Your task to perform on an android device: open app "Pinterest" (install if not already installed) Image 0: 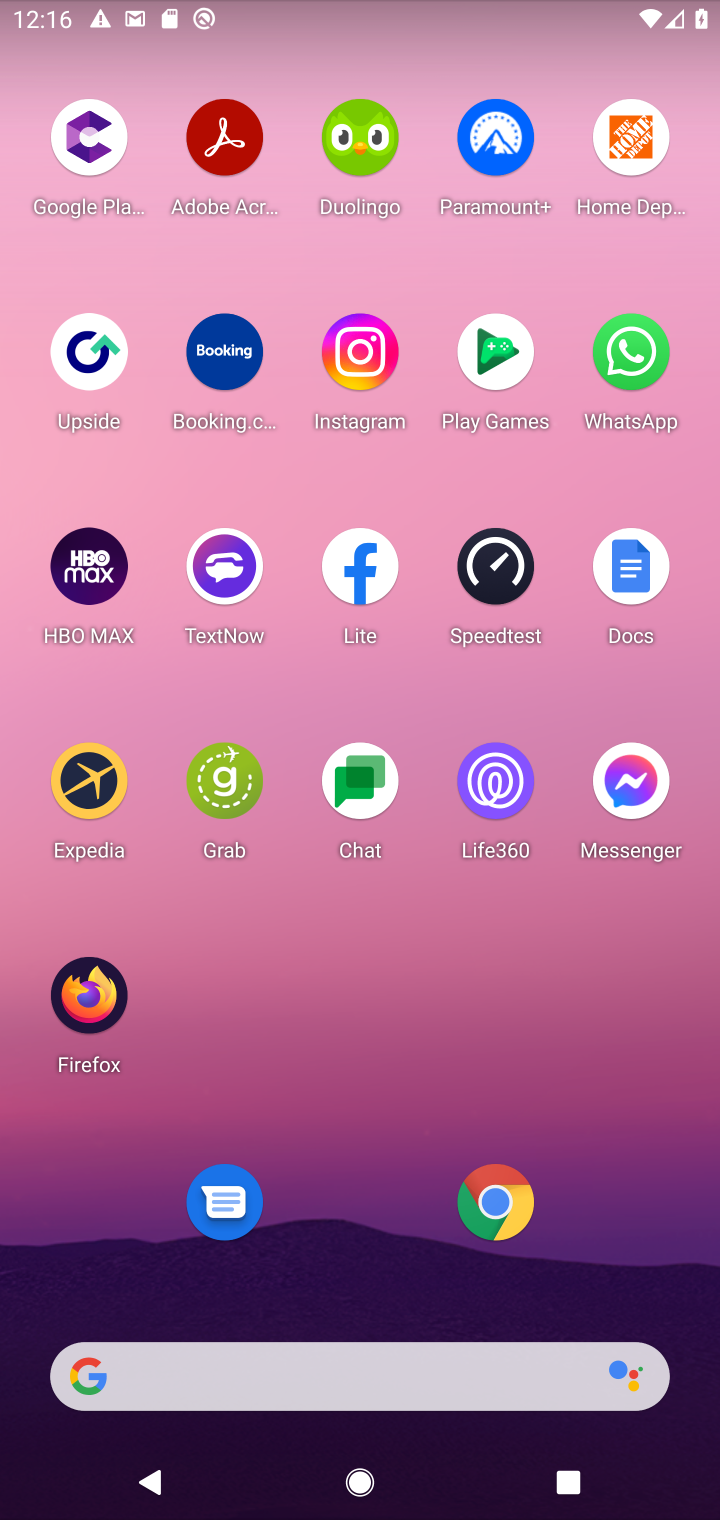
Step 0: press home button
Your task to perform on an android device: open app "Pinterest" (install if not already installed) Image 1: 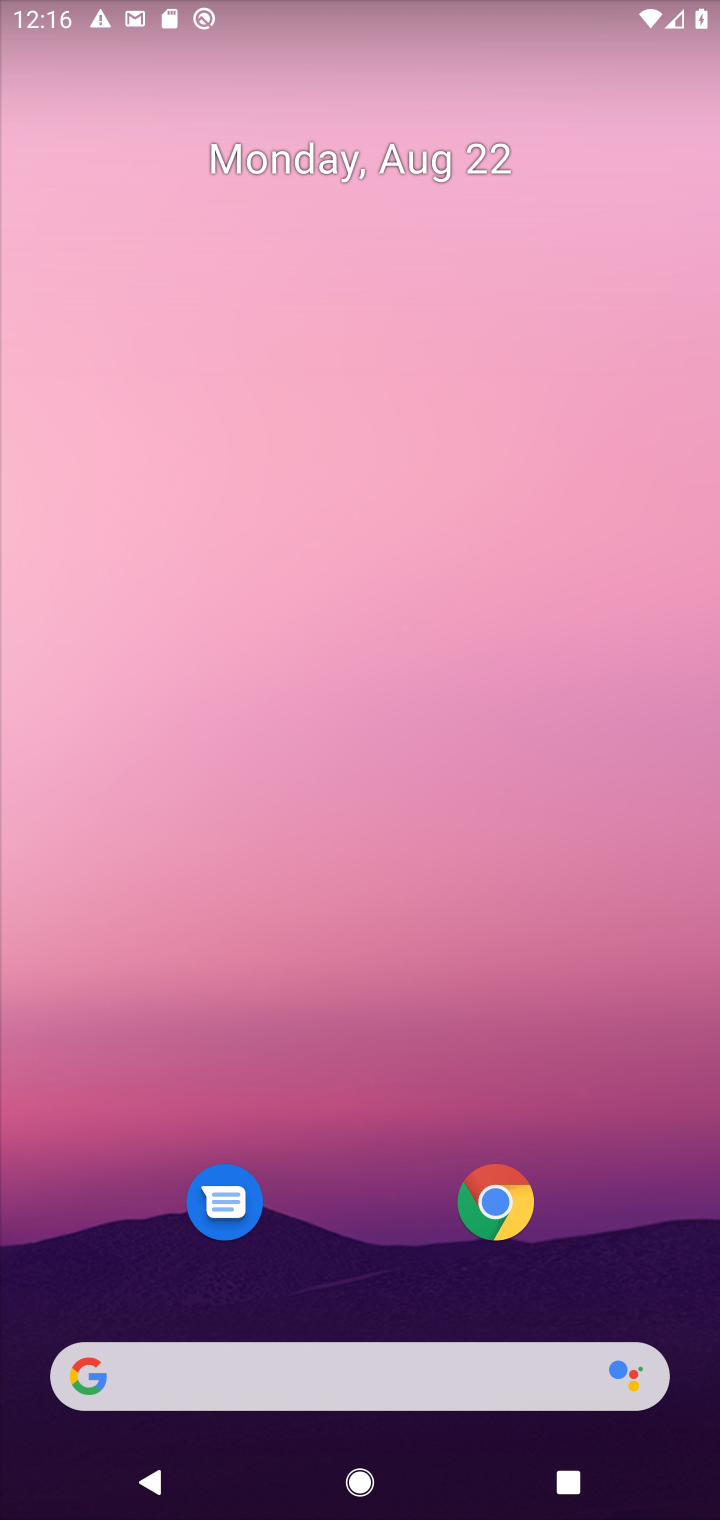
Step 1: drag from (358, 1197) to (286, 182)
Your task to perform on an android device: open app "Pinterest" (install if not already installed) Image 2: 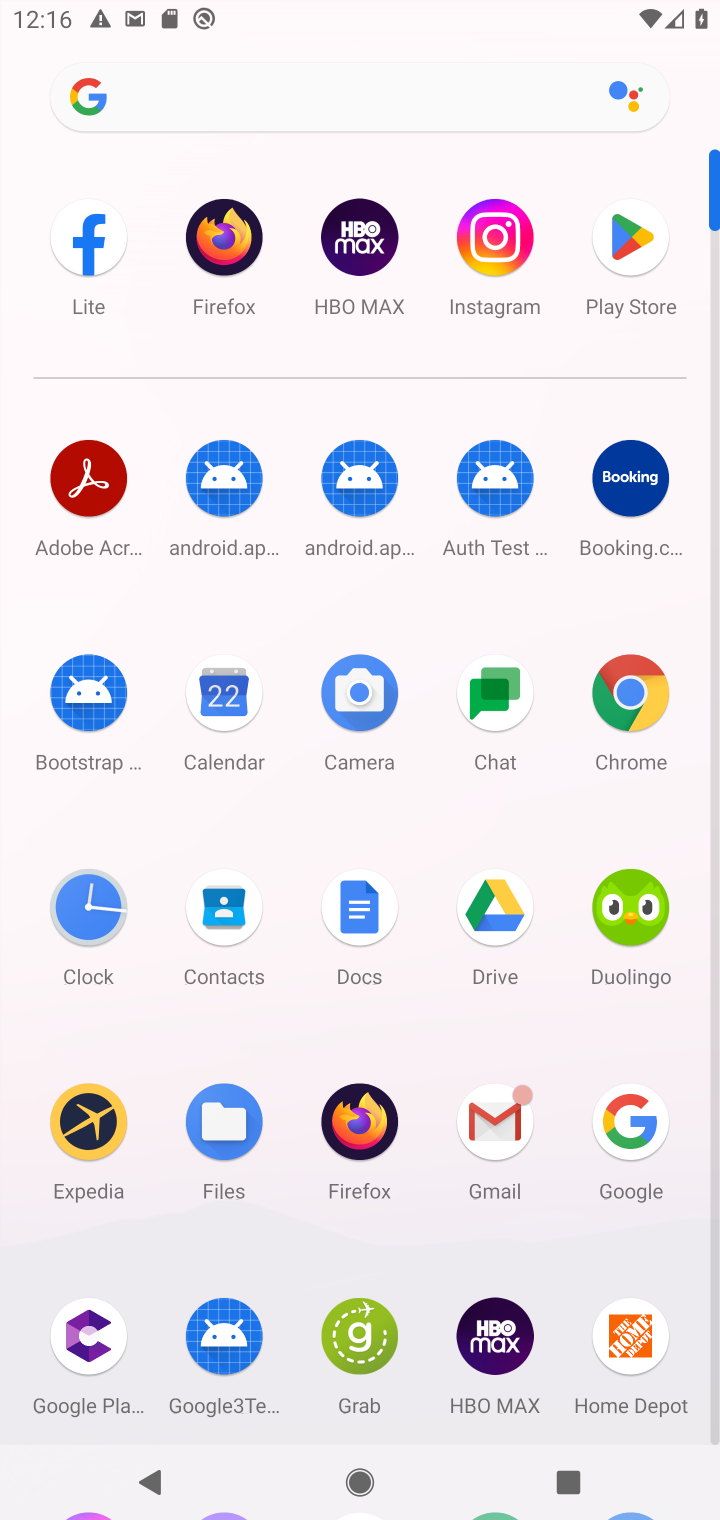
Step 2: click (621, 248)
Your task to perform on an android device: open app "Pinterest" (install if not already installed) Image 3: 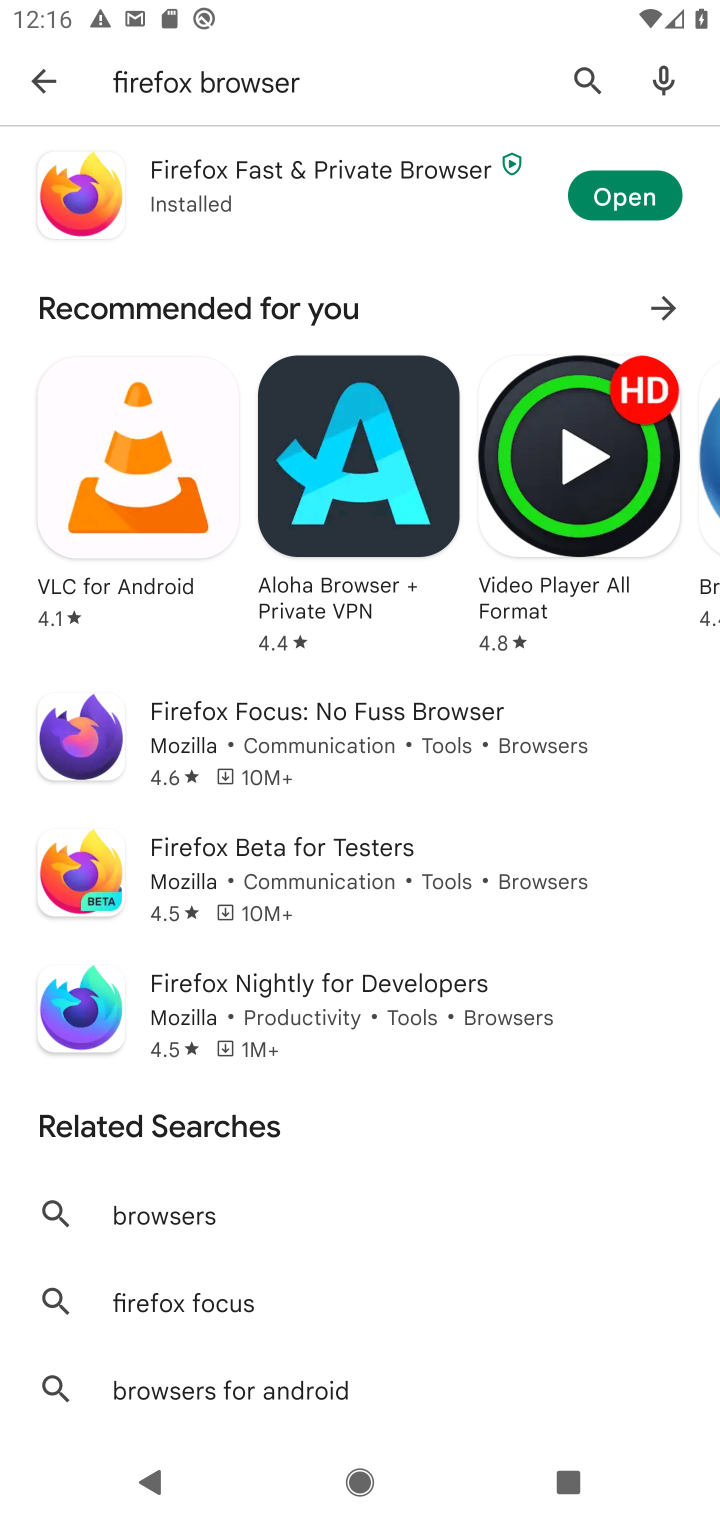
Step 3: click (584, 70)
Your task to perform on an android device: open app "Pinterest" (install if not already installed) Image 4: 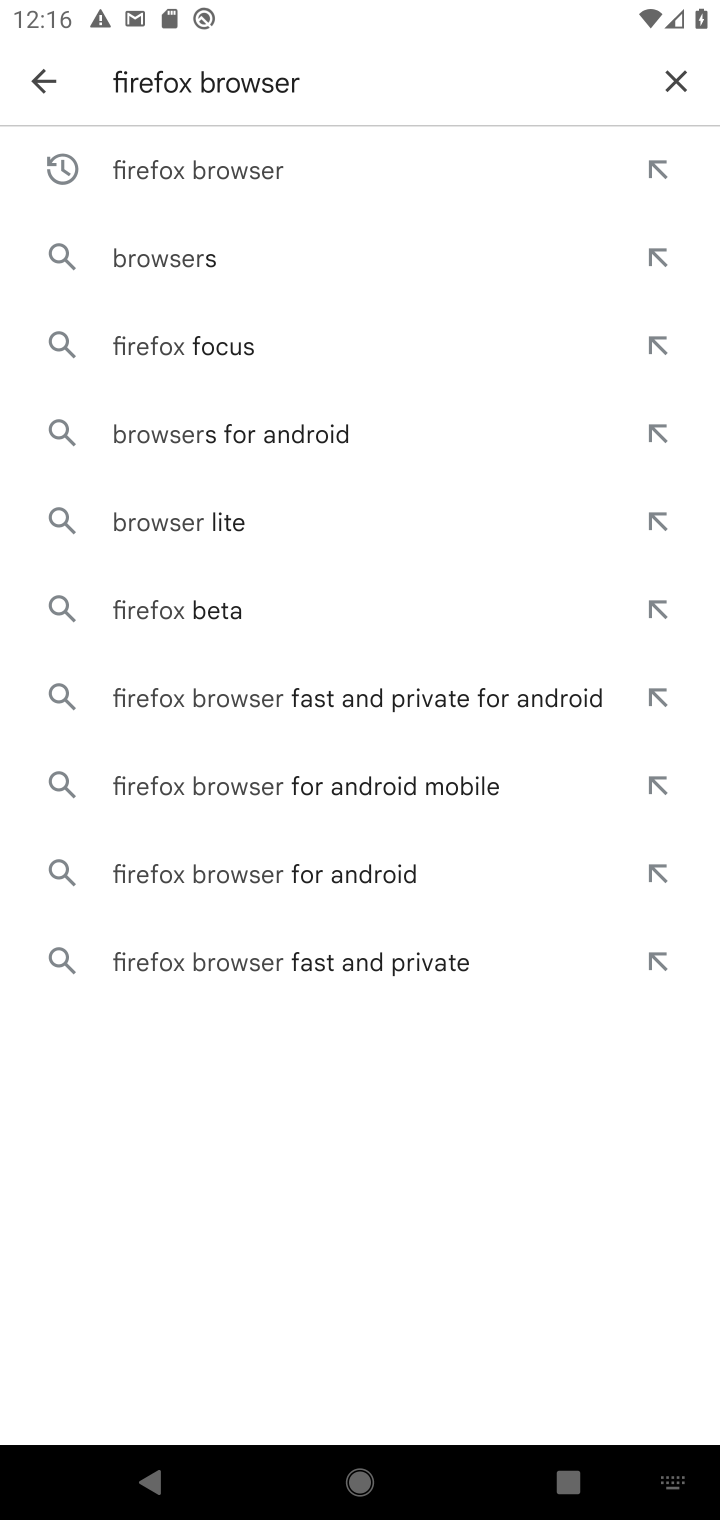
Step 4: click (669, 80)
Your task to perform on an android device: open app "Pinterest" (install if not already installed) Image 5: 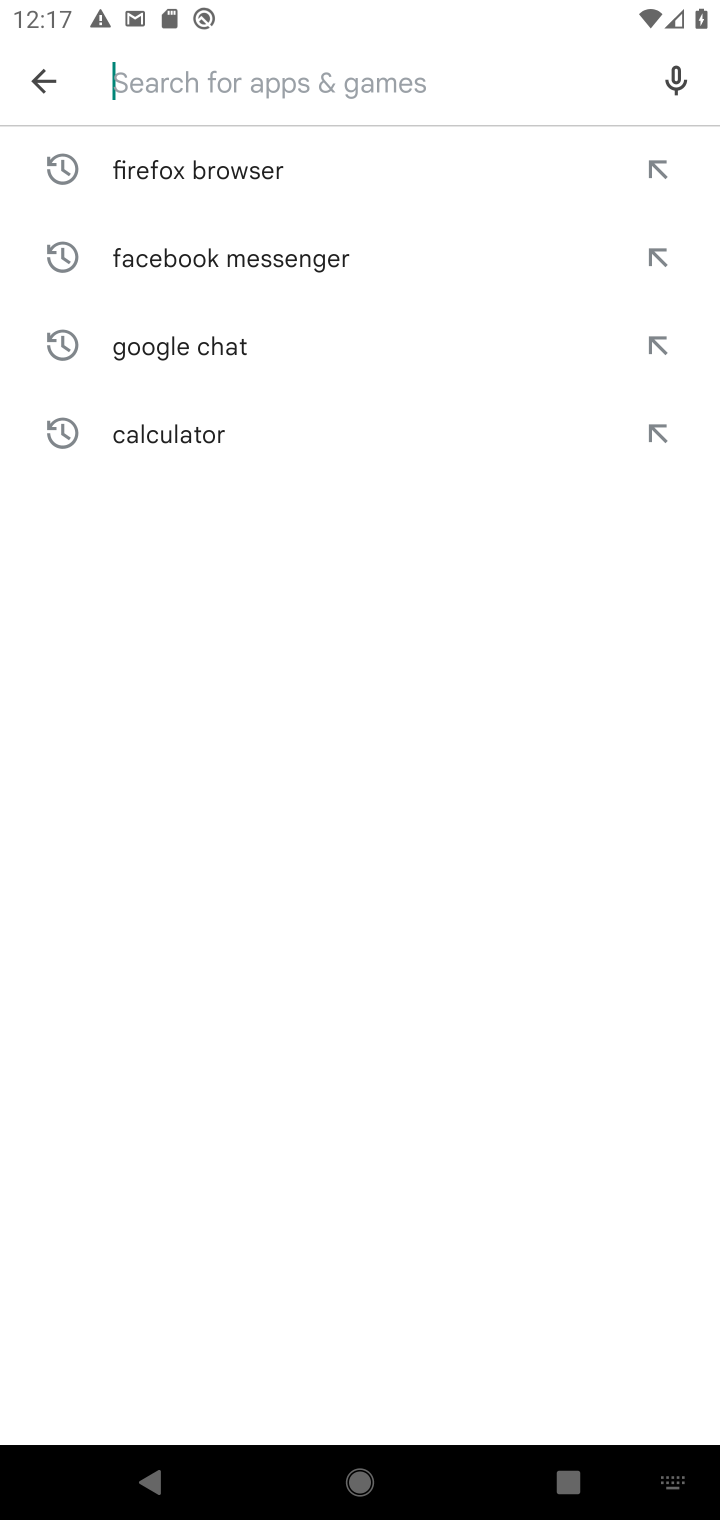
Step 5: type "Pinterest"
Your task to perform on an android device: open app "Pinterest" (install if not already installed) Image 6: 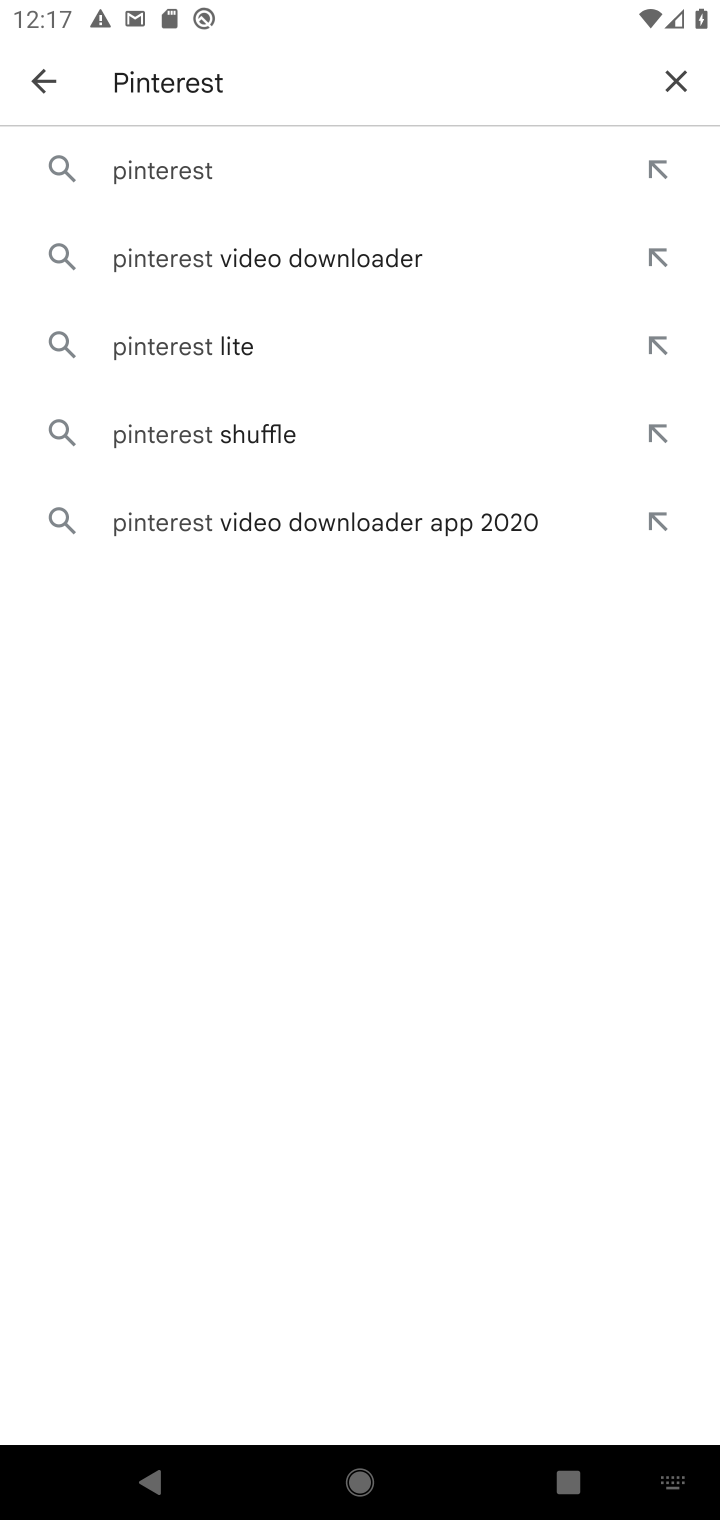
Step 6: click (131, 164)
Your task to perform on an android device: open app "Pinterest" (install if not already installed) Image 7: 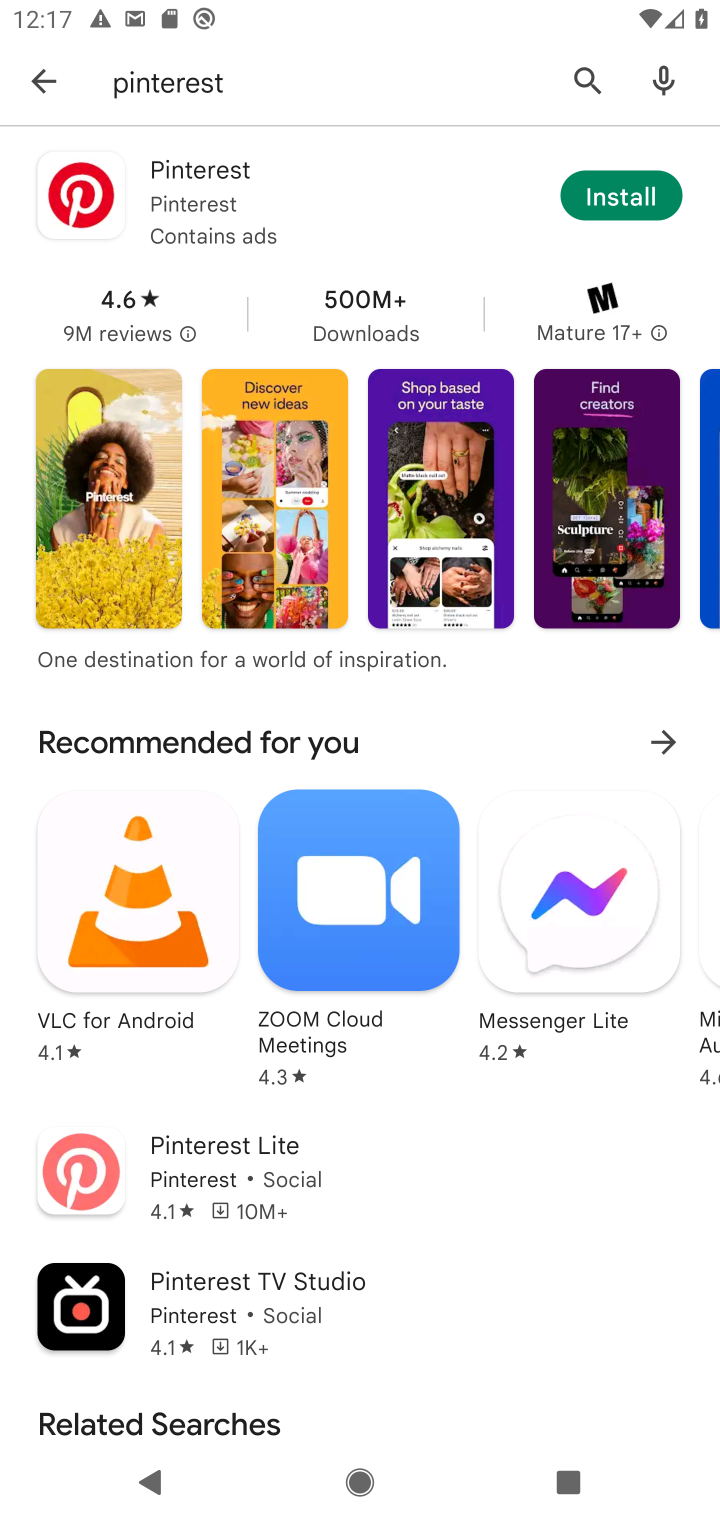
Step 7: click (605, 199)
Your task to perform on an android device: open app "Pinterest" (install if not already installed) Image 8: 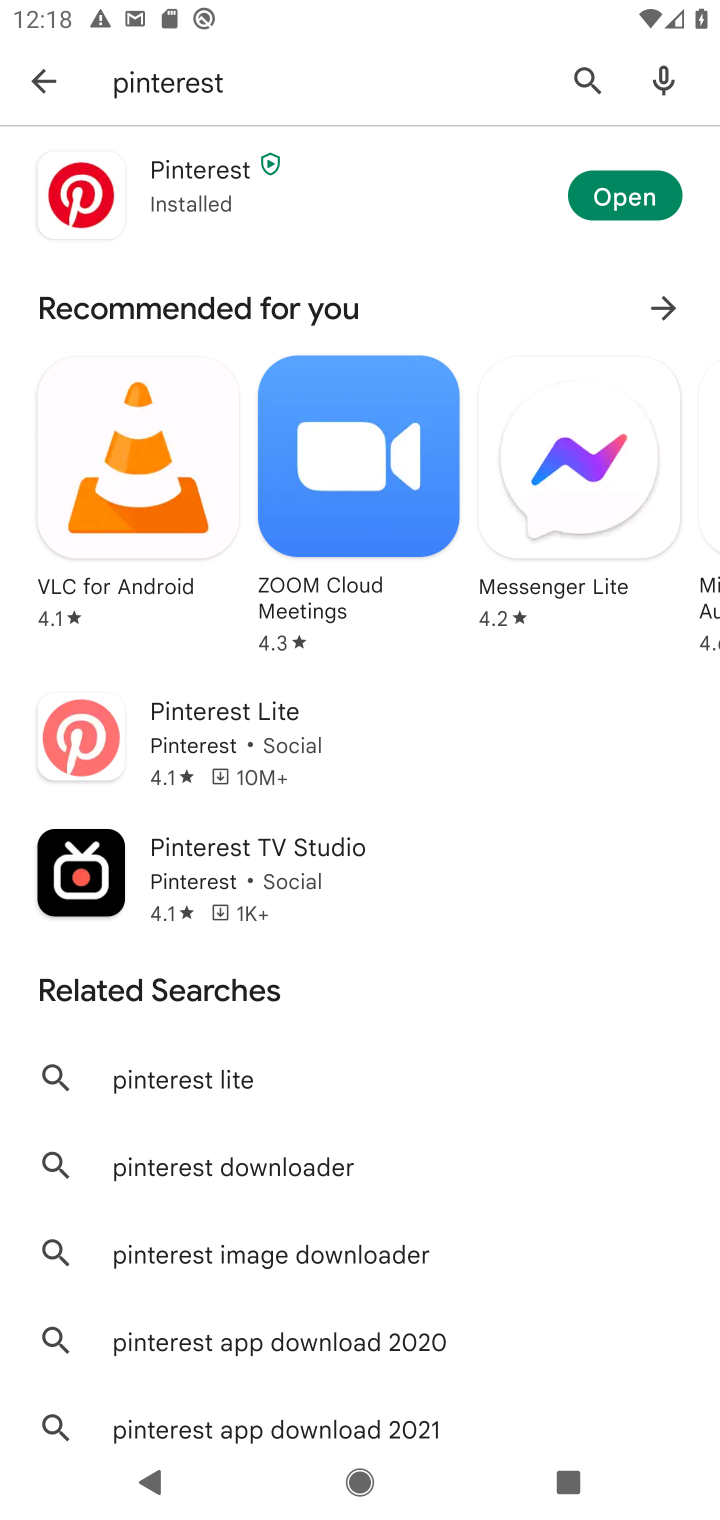
Step 8: click (651, 188)
Your task to perform on an android device: open app "Pinterest" (install if not already installed) Image 9: 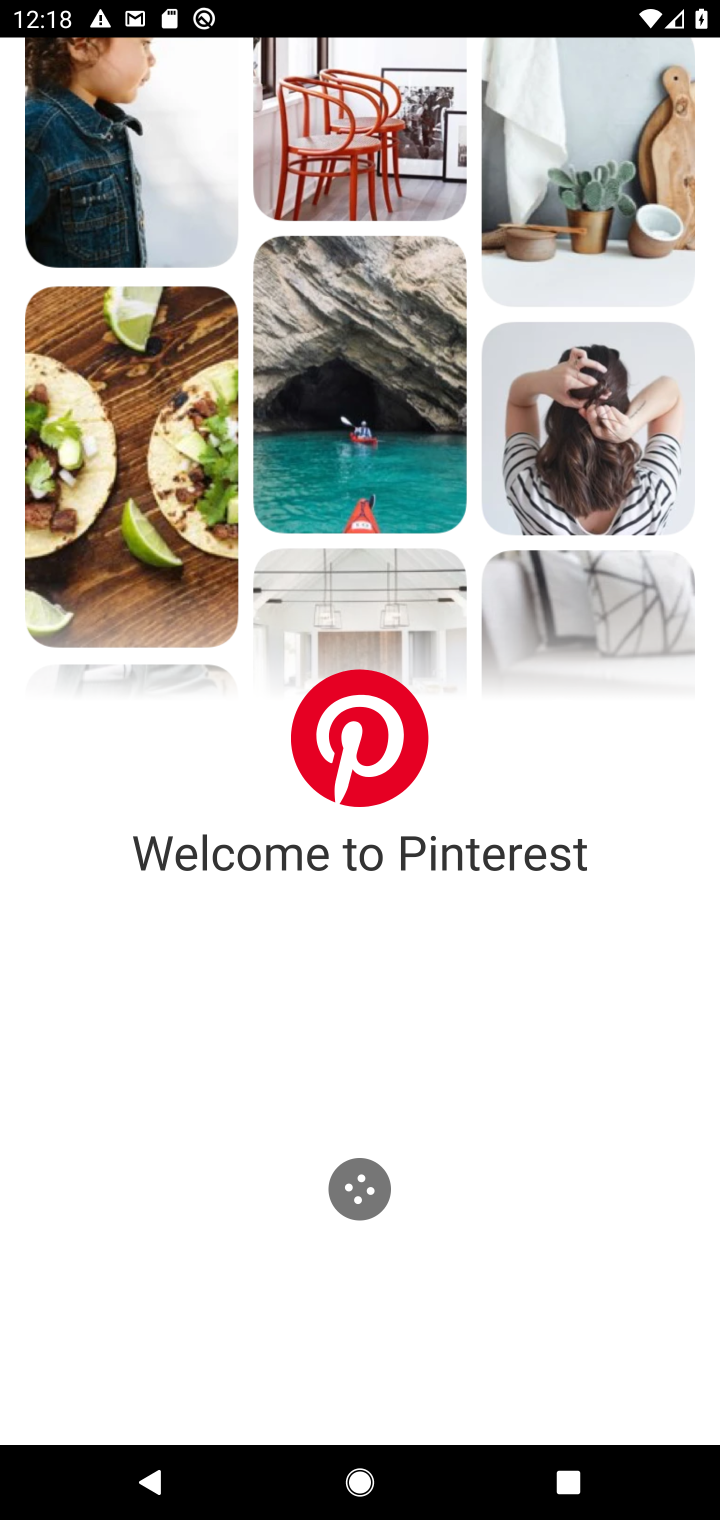
Step 9: task complete